Your task to perform on an android device: empty trash in the gmail app Image 0: 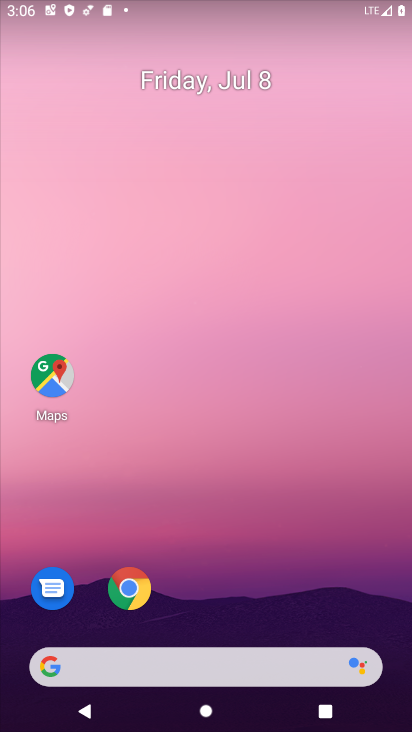
Step 0: drag from (168, 668) to (202, 158)
Your task to perform on an android device: empty trash in the gmail app Image 1: 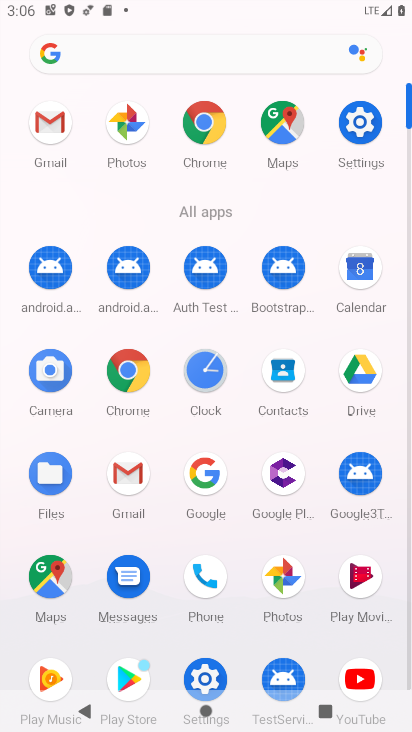
Step 1: click (37, 131)
Your task to perform on an android device: empty trash in the gmail app Image 2: 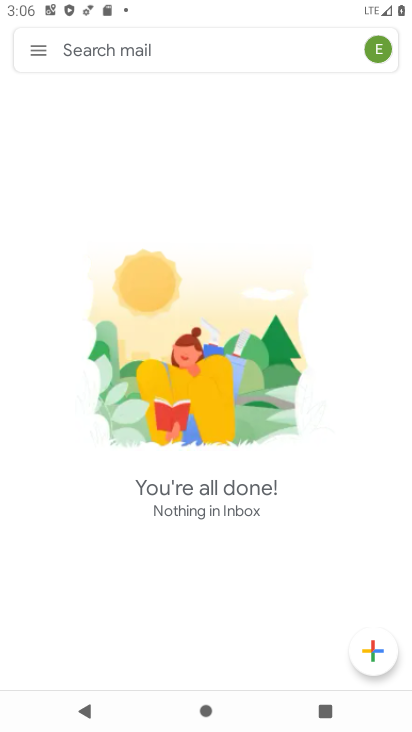
Step 2: click (39, 49)
Your task to perform on an android device: empty trash in the gmail app Image 3: 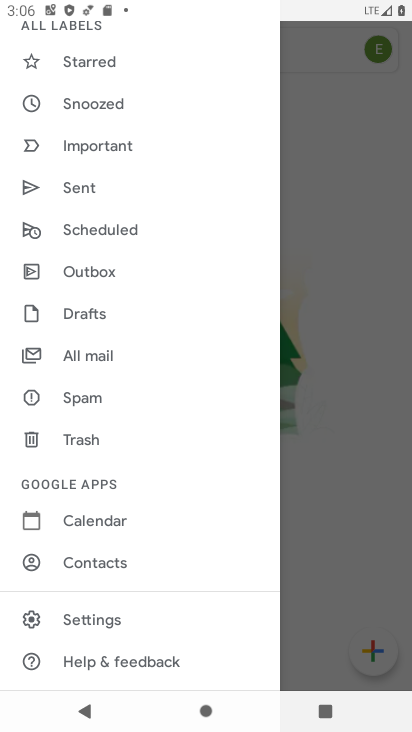
Step 3: click (81, 443)
Your task to perform on an android device: empty trash in the gmail app Image 4: 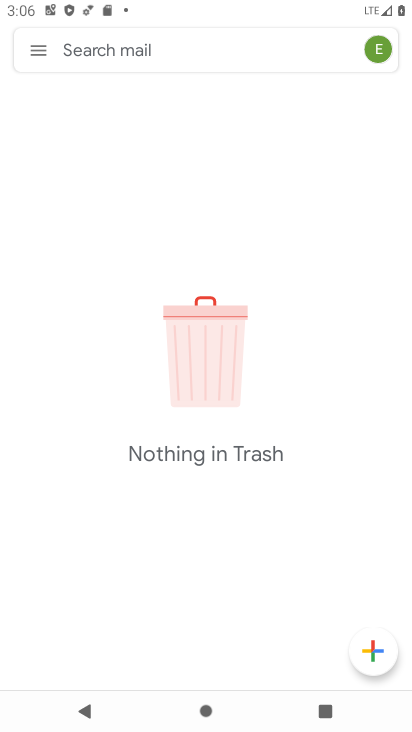
Step 4: task complete